Your task to perform on an android device: Open Android settings Image 0: 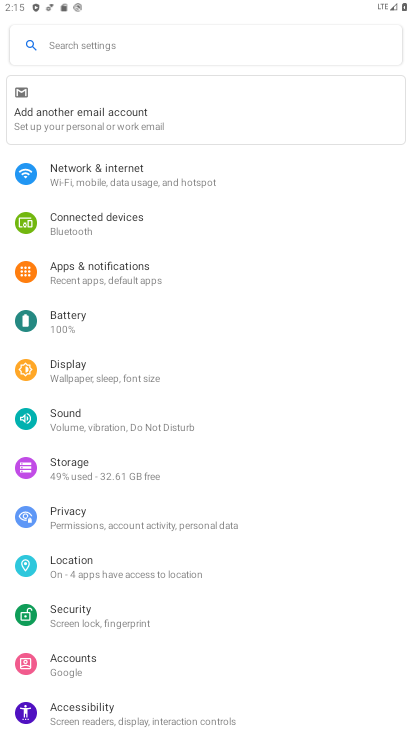
Step 0: press home button
Your task to perform on an android device: Open Android settings Image 1: 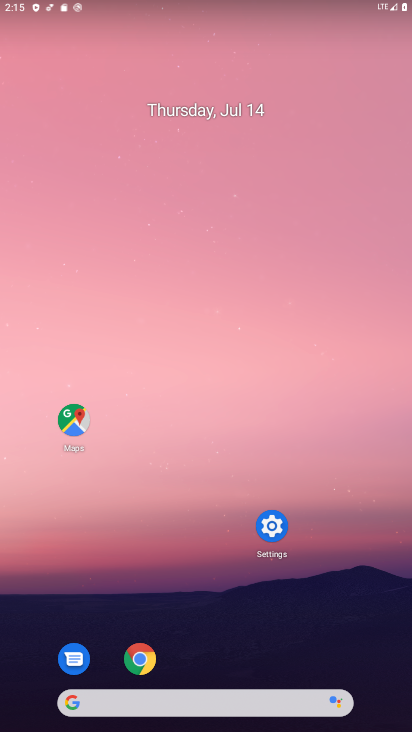
Step 1: click (282, 538)
Your task to perform on an android device: Open Android settings Image 2: 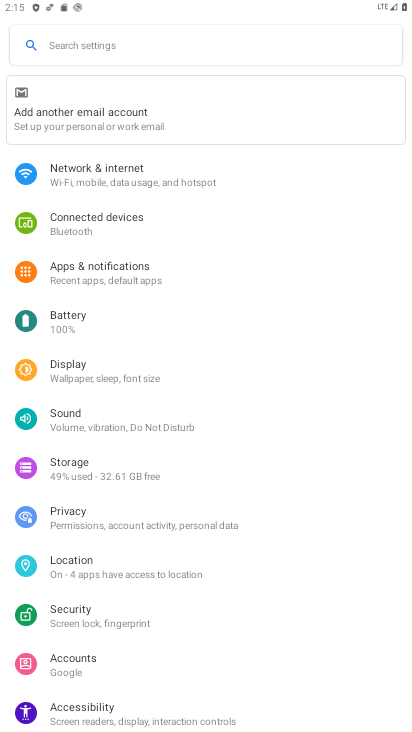
Step 2: click (96, 48)
Your task to perform on an android device: Open Android settings Image 3: 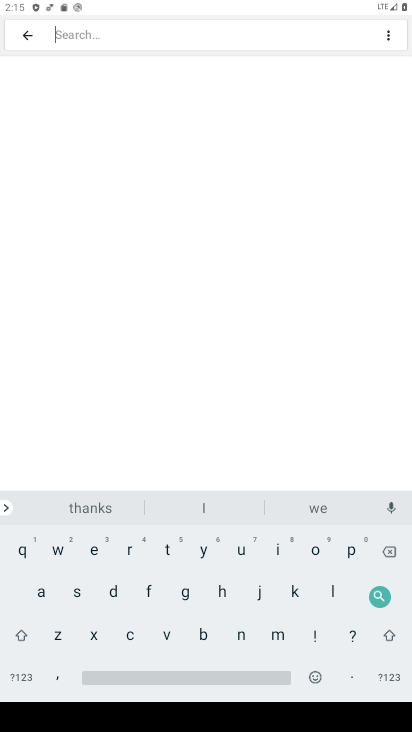
Step 3: click (35, 600)
Your task to perform on an android device: Open Android settings Image 4: 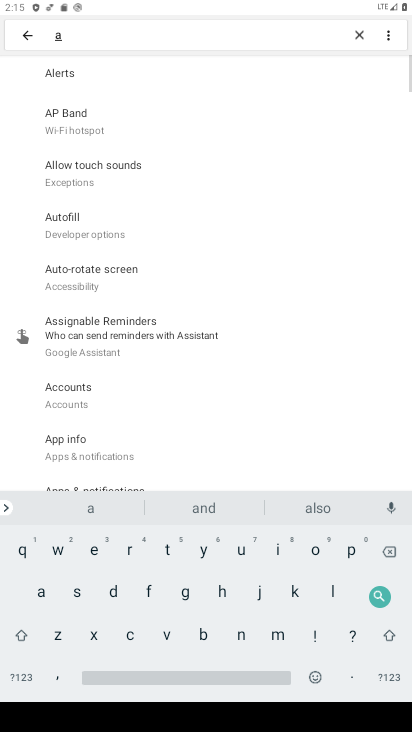
Step 4: click (241, 640)
Your task to perform on an android device: Open Android settings Image 5: 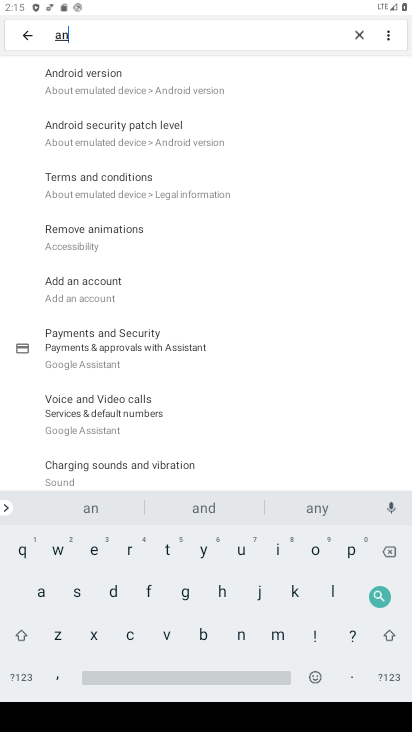
Step 5: click (95, 95)
Your task to perform on an android device: Open Android settings Image 6: 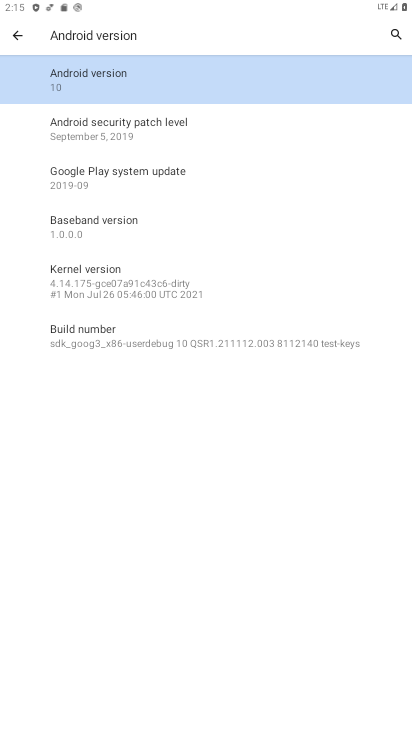
Step 6: click (95, 95)
Your task to perform on an android device: Open Android settings Image 7: 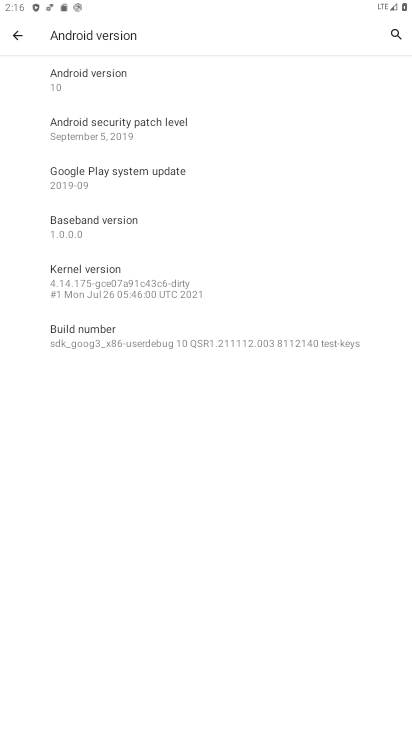
Step 7: task complete